Your task to perform on an android device: delete location history Image 0: 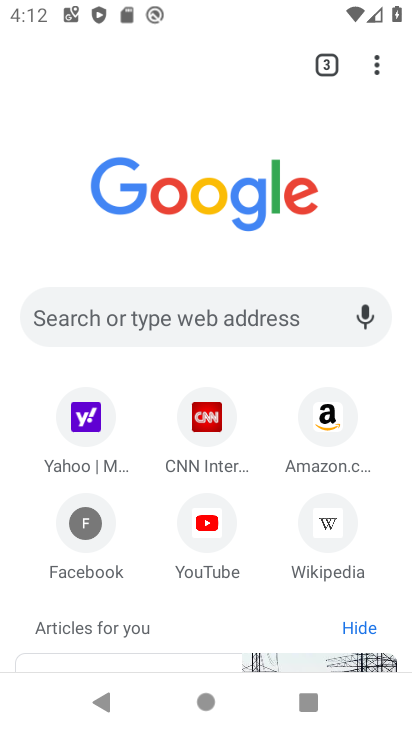
Step 0: press home button
Your task to perform on an android device: delete location history Image 1: 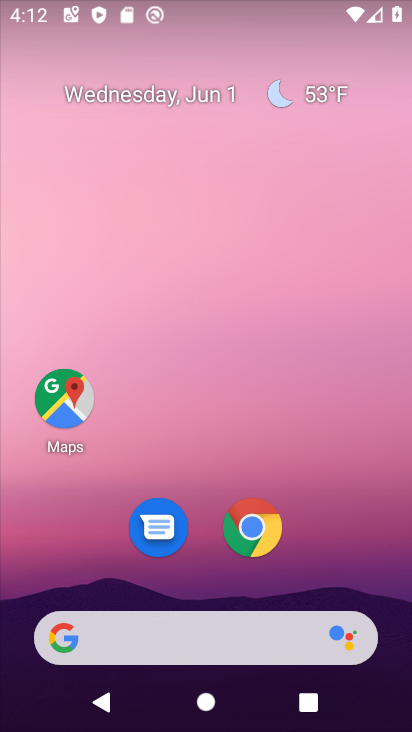
Step 1: drag from (302, 569) to (329, 74)
Your task to perform on an android device: delete location history Image 2: 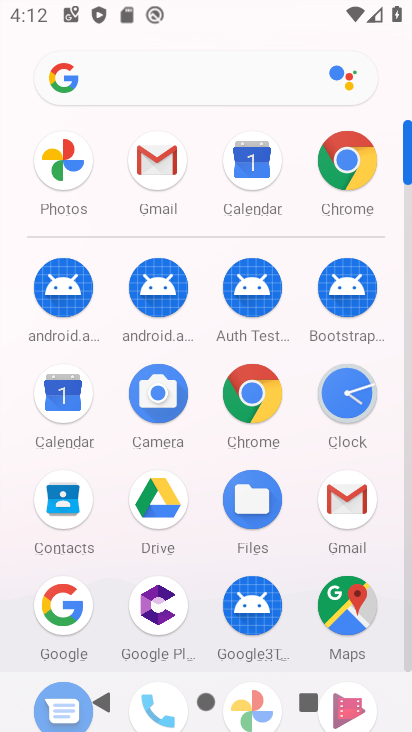
Step 2: click (345, 601)
Your task to perform on an android device: delete location history Image 3: 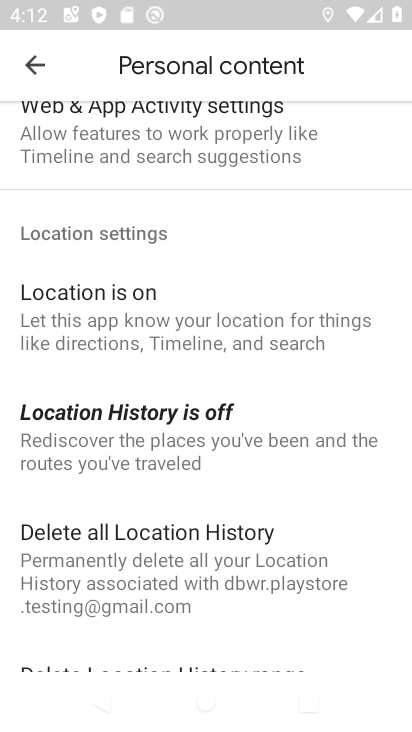
Step 3: click (155, 530)
Your task to perform on an android device: delete location history Image 4: 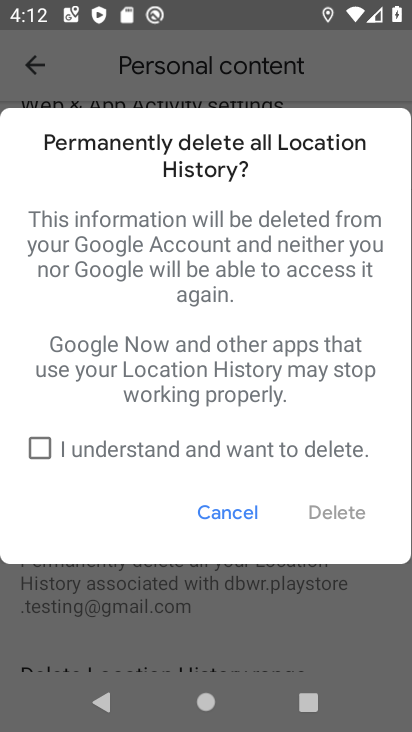
Step 4: click (41, 446)
Your task to perform on an android device: delete location history Image 5: 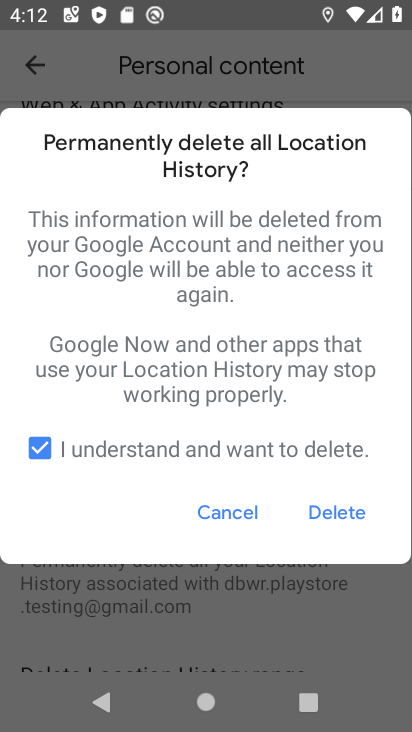
Step 5: click (347, 504)
Your task to perform on an android device: delete location history Image 6: 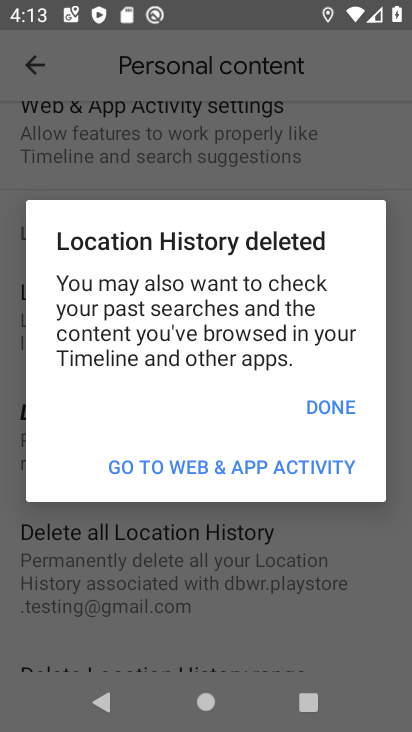
Step 6: click (328, 399)
Your task to perform on an android device: delete location history Image 7: 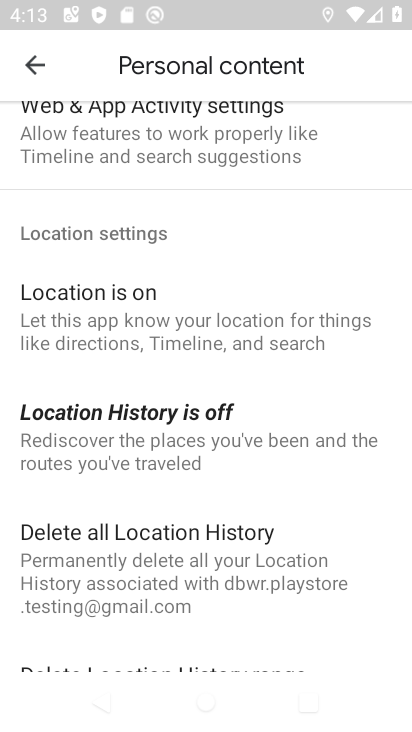
Step 7: task complete